Your task to perform on an android device: turn off notifications settings in the gmail app Image 0: 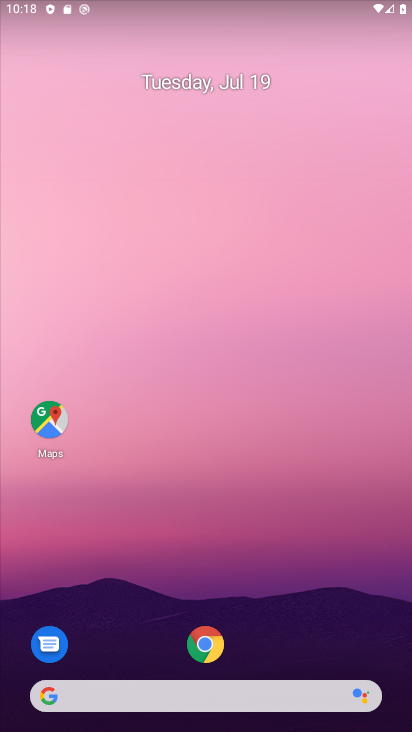
Step 0: drag from (222, 689) to (212, 0)
Your task to perform on an android device: turn off notifications settings in the gmail app Image 1: 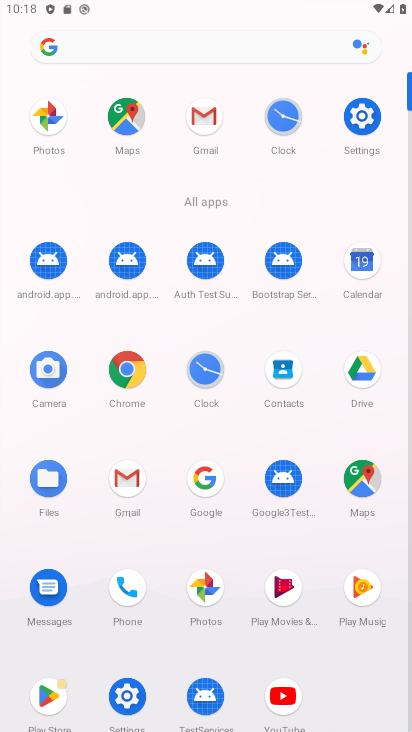
Step 1: click (124, 477)
Your task to perform on an android device: turn off notifications settings in the gmail app Image 2: 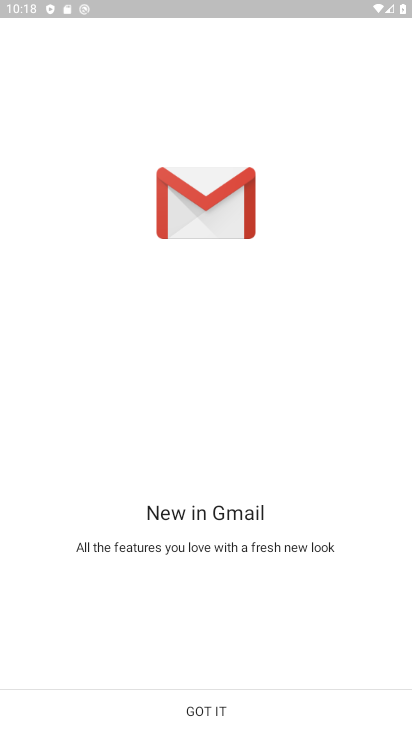
Step 2: click (187, 706)
Your task to perform on an android device: turn off notifications settings in the gmail app Image 3: 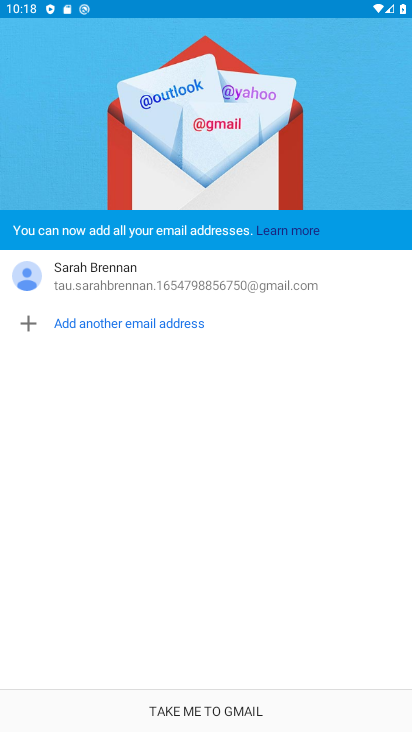
Step 3: click (187, 706)
Your task to perform on an android device: turn off notifications settings in the gmail app Image 4: 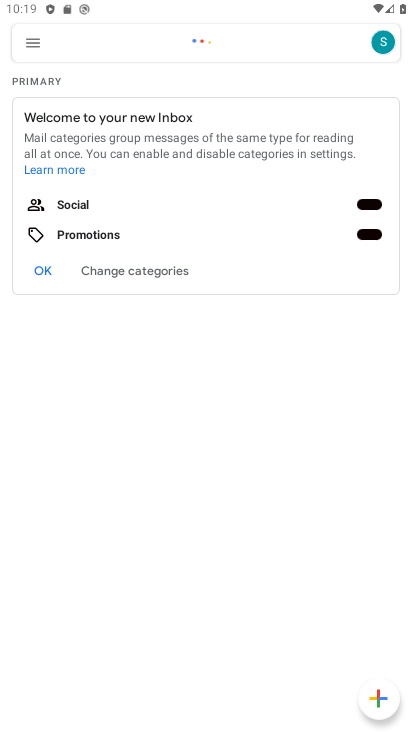
Step 4: click (31, 47)
Your task to perform on an android device: turn off notifications settings in the gmail app Image 5: 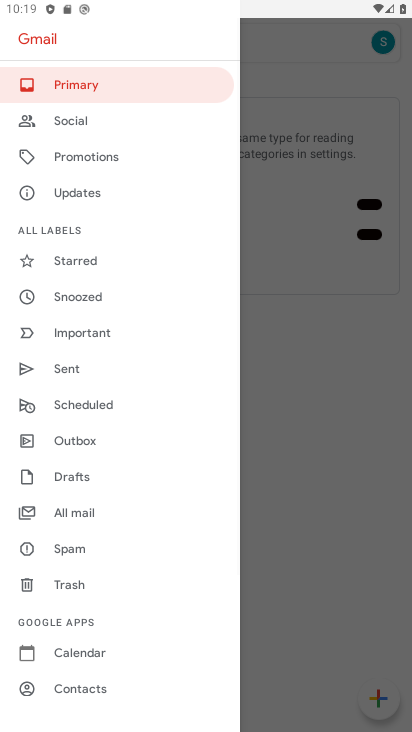
Step 5: drag from (69, 654) to (49, 198)
Your task to perform on an android device: turn off notifications settings in the gmail app Image 6: 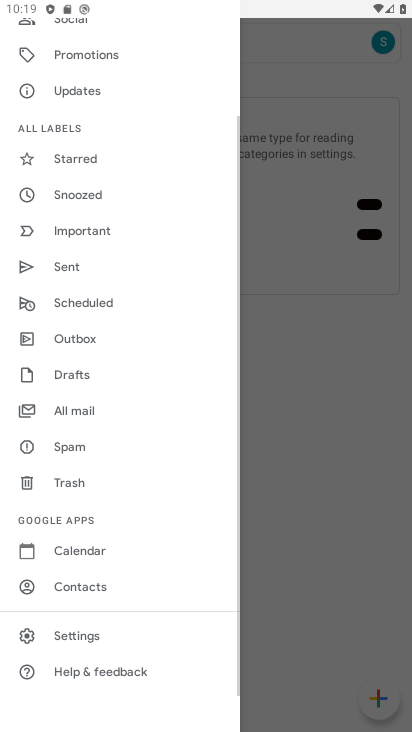
Step 6: click (65, 626)
Your task to perform on an android device: turn off notifications settings in the gmail app Image 7: 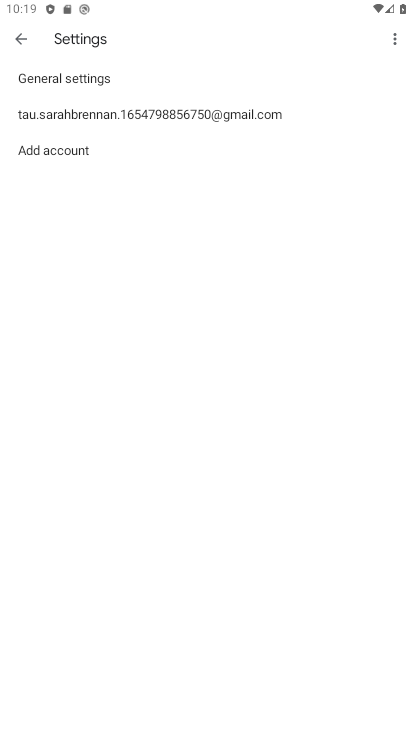
Step 7: click (43, 119)
Your task to perform on an android device: turn off notifications settings in the gmail app Image 8: 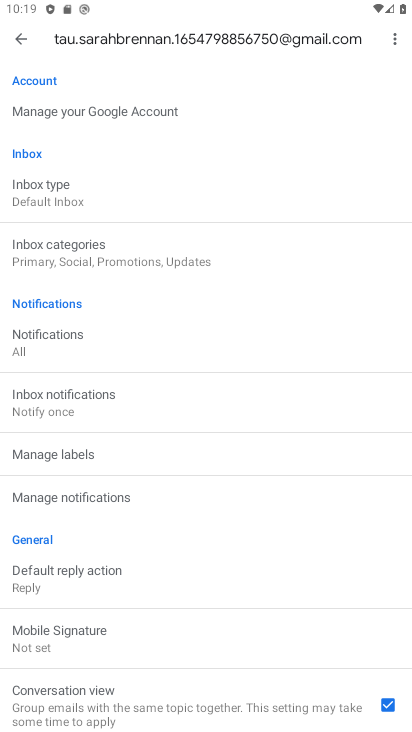
Step 8: click (148, 489)
Your task to perform on an android device: turn off notifications settings in the gmail app Image 9: 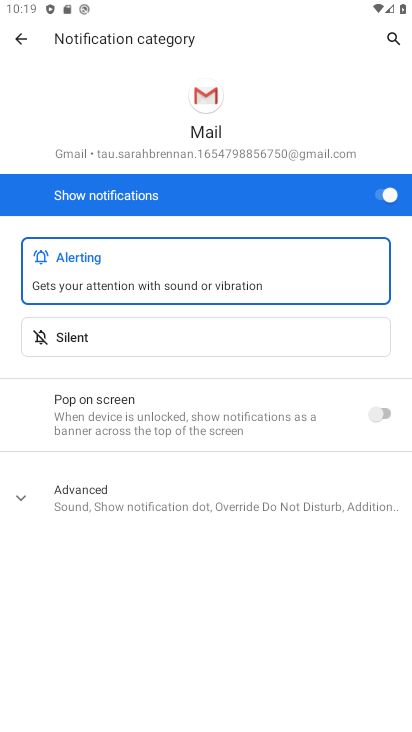
Step 9: click (385, 190)
Your task to perform on an android device: turn off notifications settings in the gmail app Image 10: 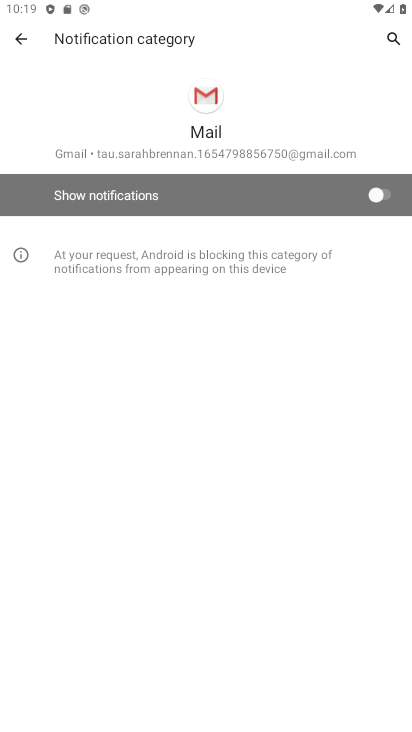
Step 10: task complete